Your task to perform on an android device: set the timer Image 0: 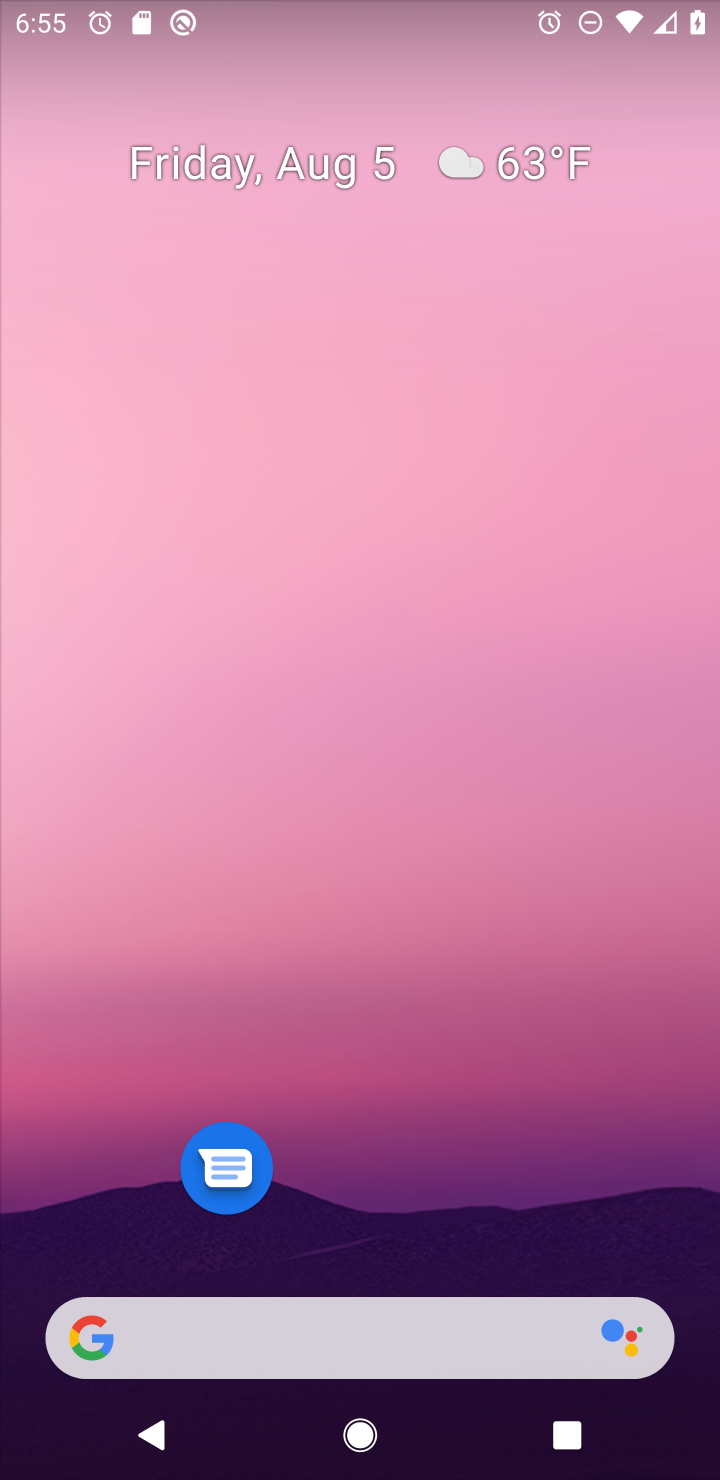
Step 0: press home button
Your task to perform on an android device: set the timer Image 1: 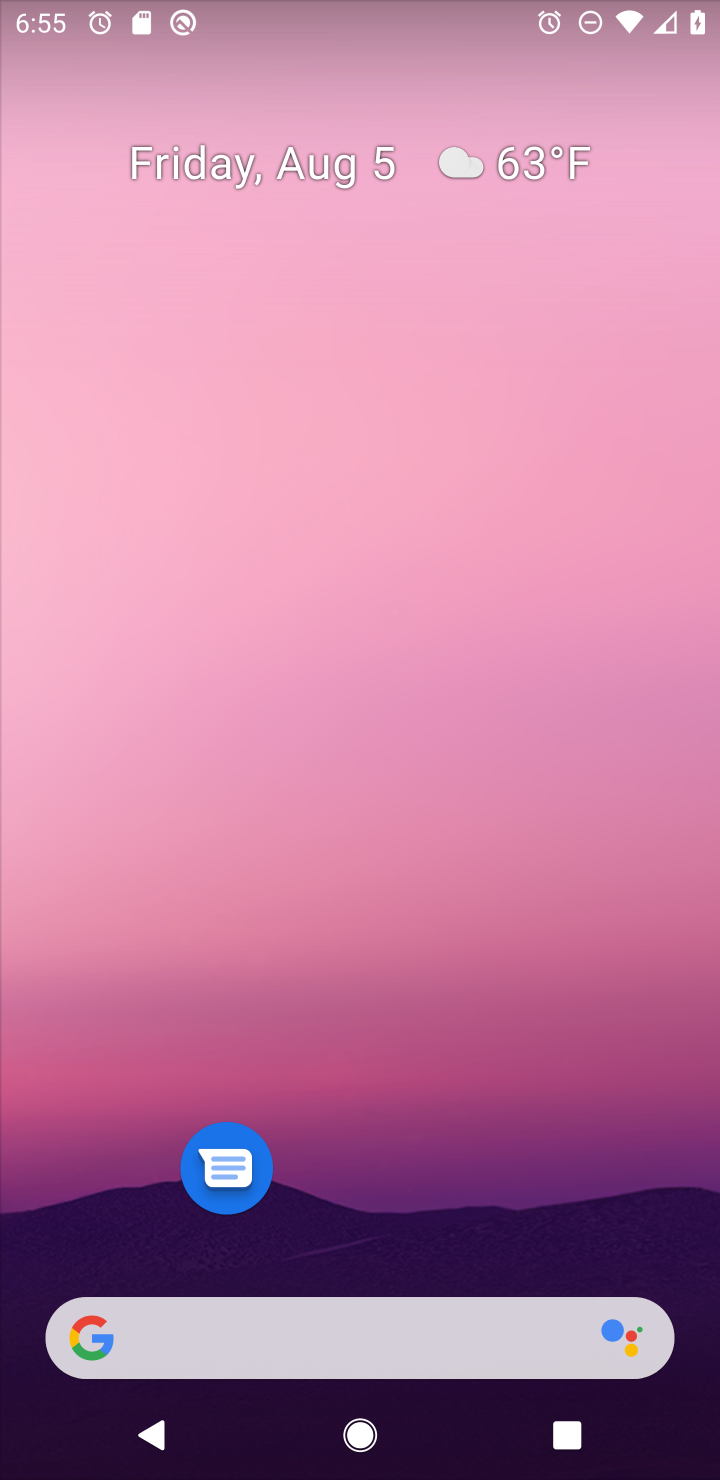
Step 1: drag from (378, 1269) to (441, 341)
Your task to perform on an android device: set the timer Image 2: 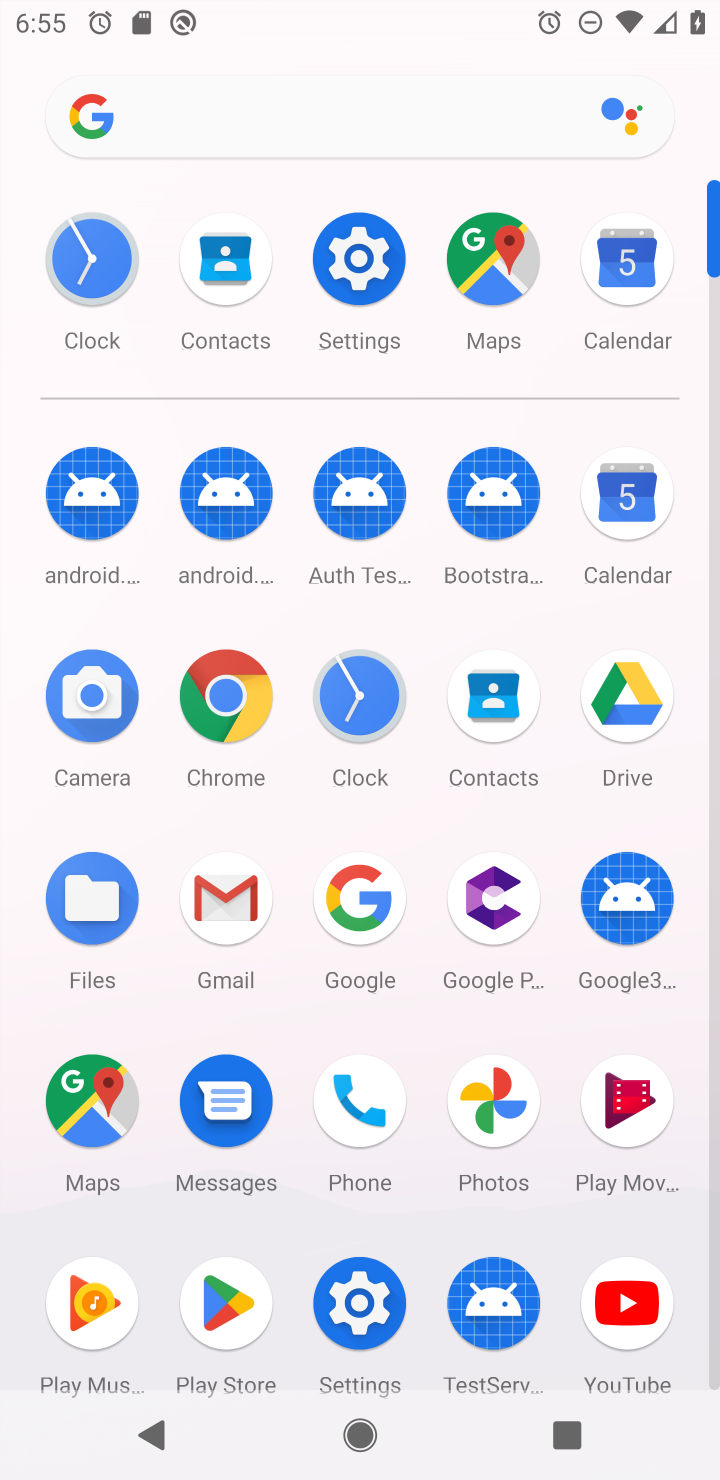
Step 2: click (379, 708)
Your task to perform on an android device: set the timer Image 3: 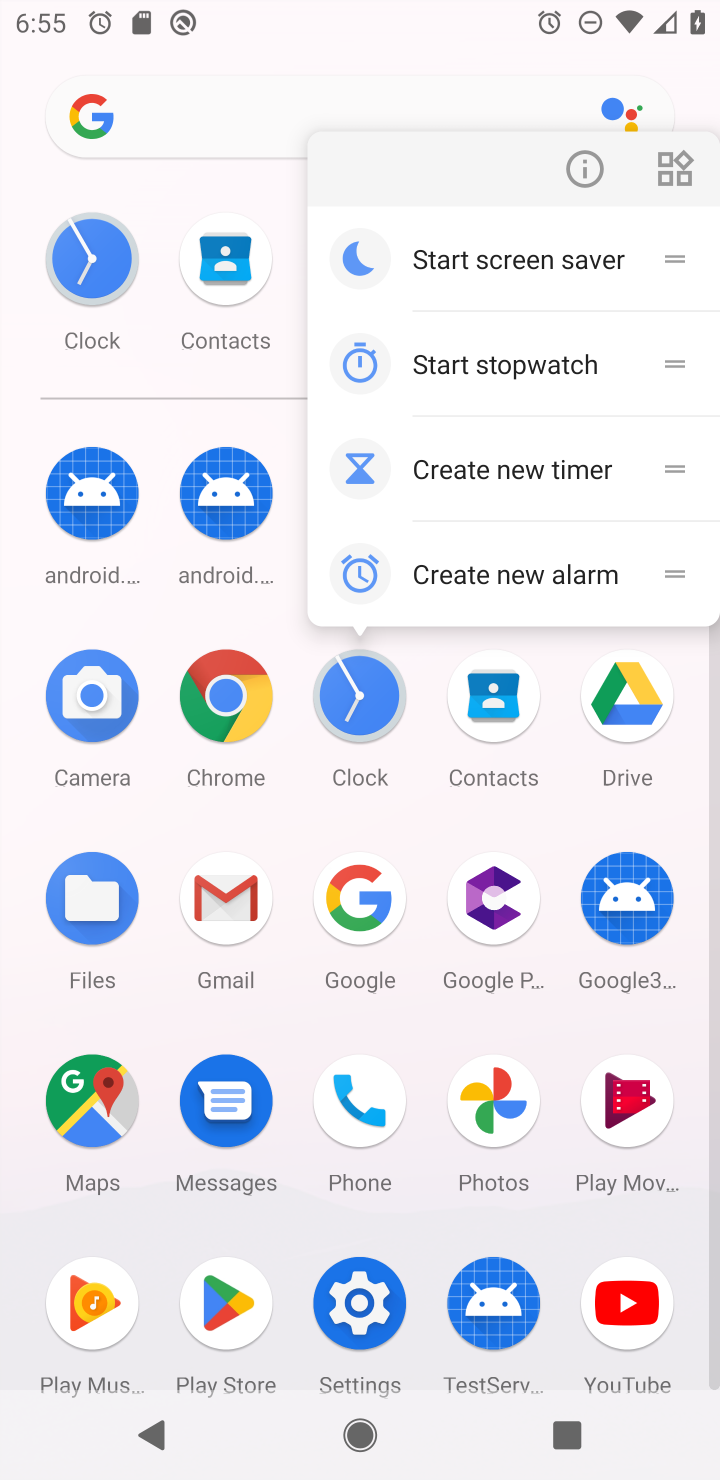
Step 3: click (379, 708)
Your task to perform on an android device: set the timer Image 4: 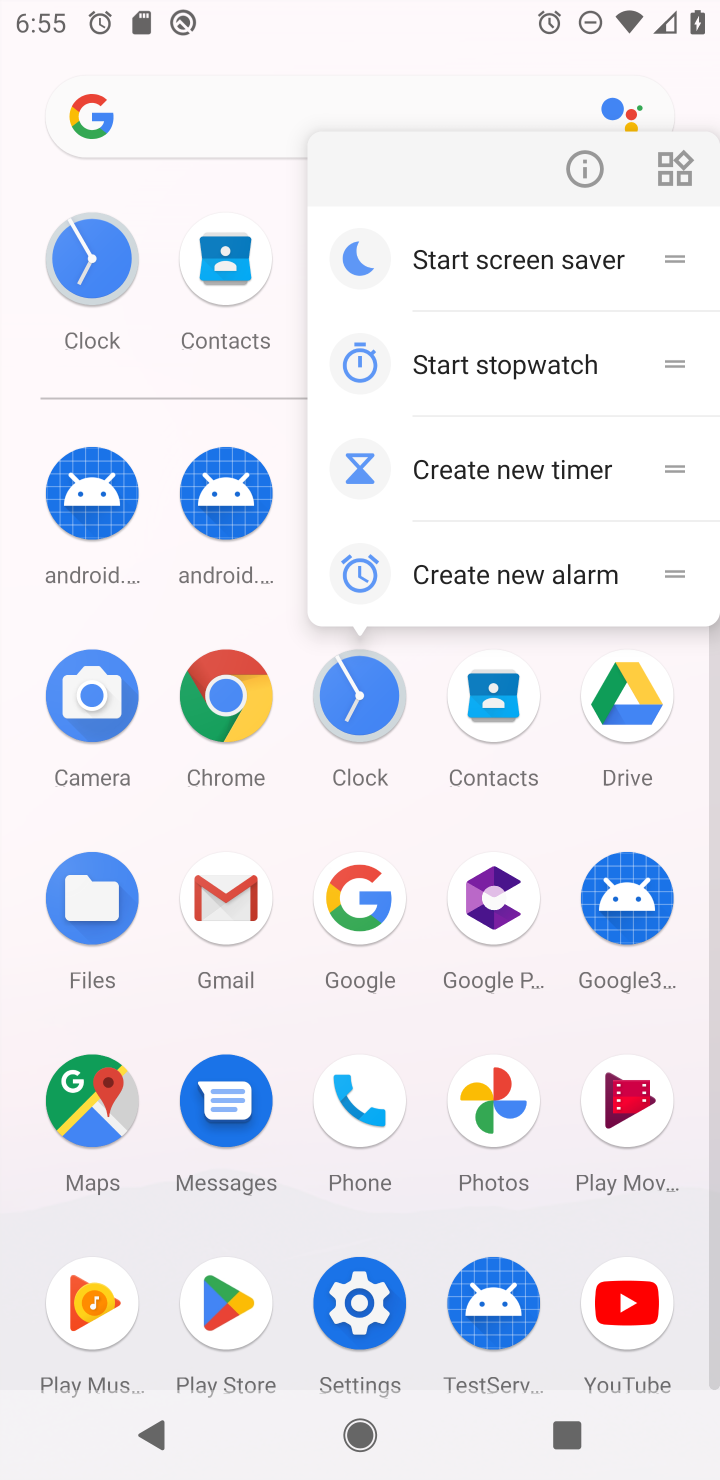
Step 4: click (379, 708)
Your task to perform on an android device: set the timer Image 5: 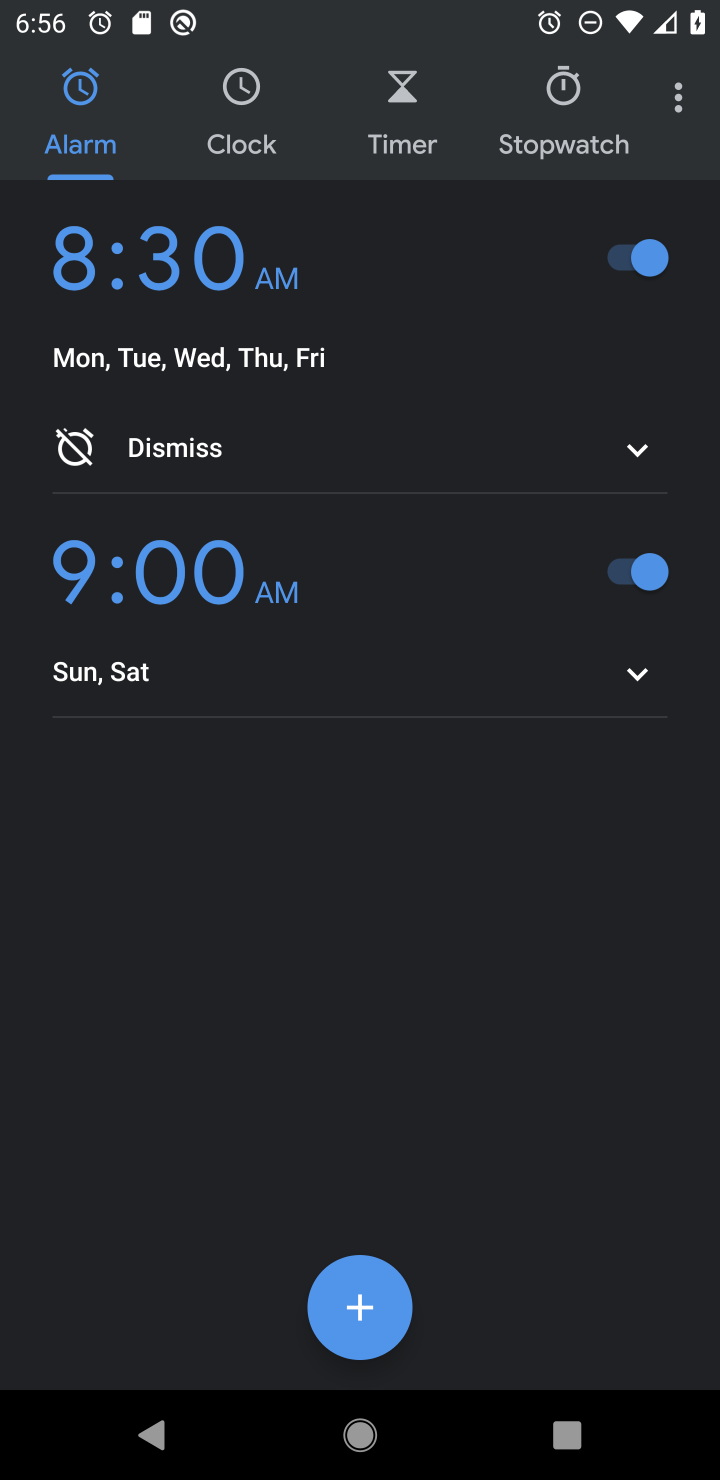
Step 5: click (404, 82)
Your task to perform on an android device: set the timer Image 6: 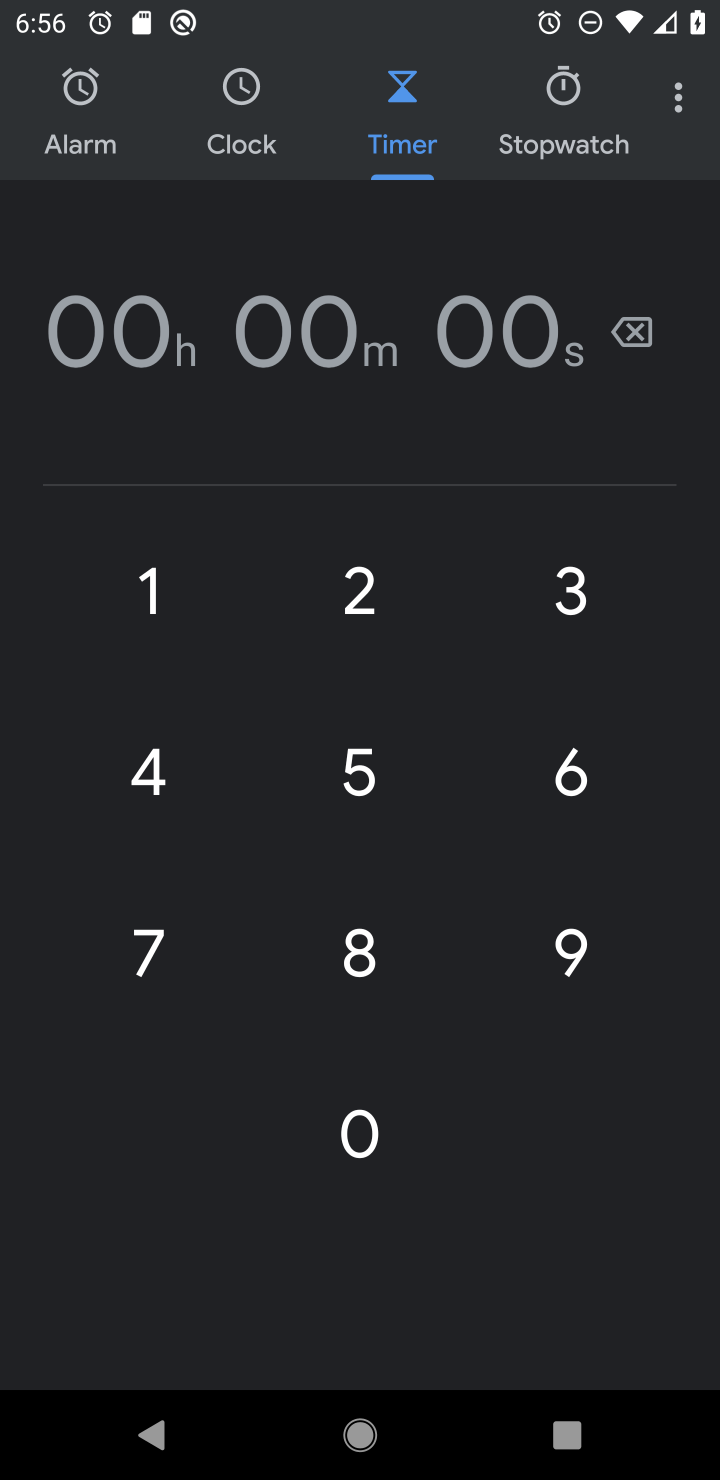
Step 6: click (151, 770)
Your task to perform on an android device: set the timer Image 7: 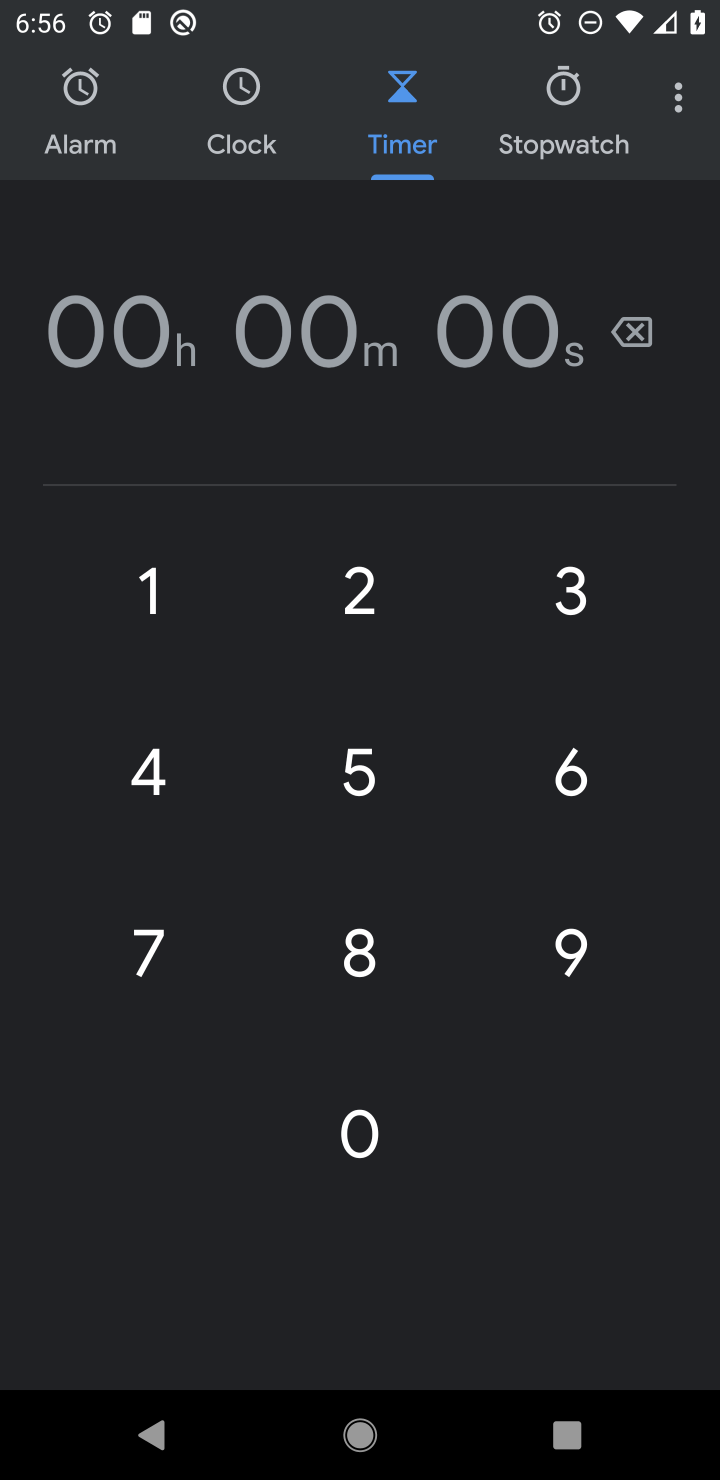
Step 7: click (342, 766)
Your task to perform on an android device: set the timer Image 8: 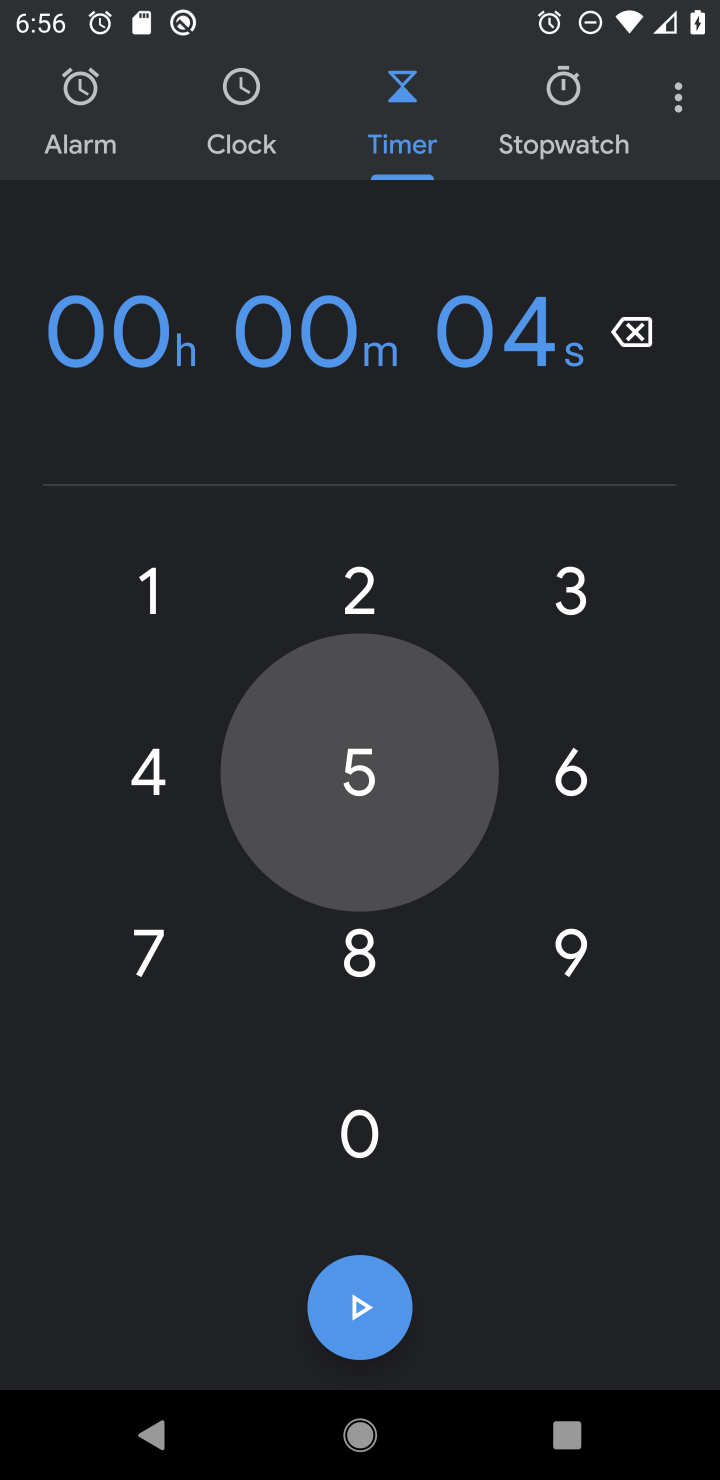
Step 8: click (373, 597)
Your task to perform on an android device: set the timer Image 9: 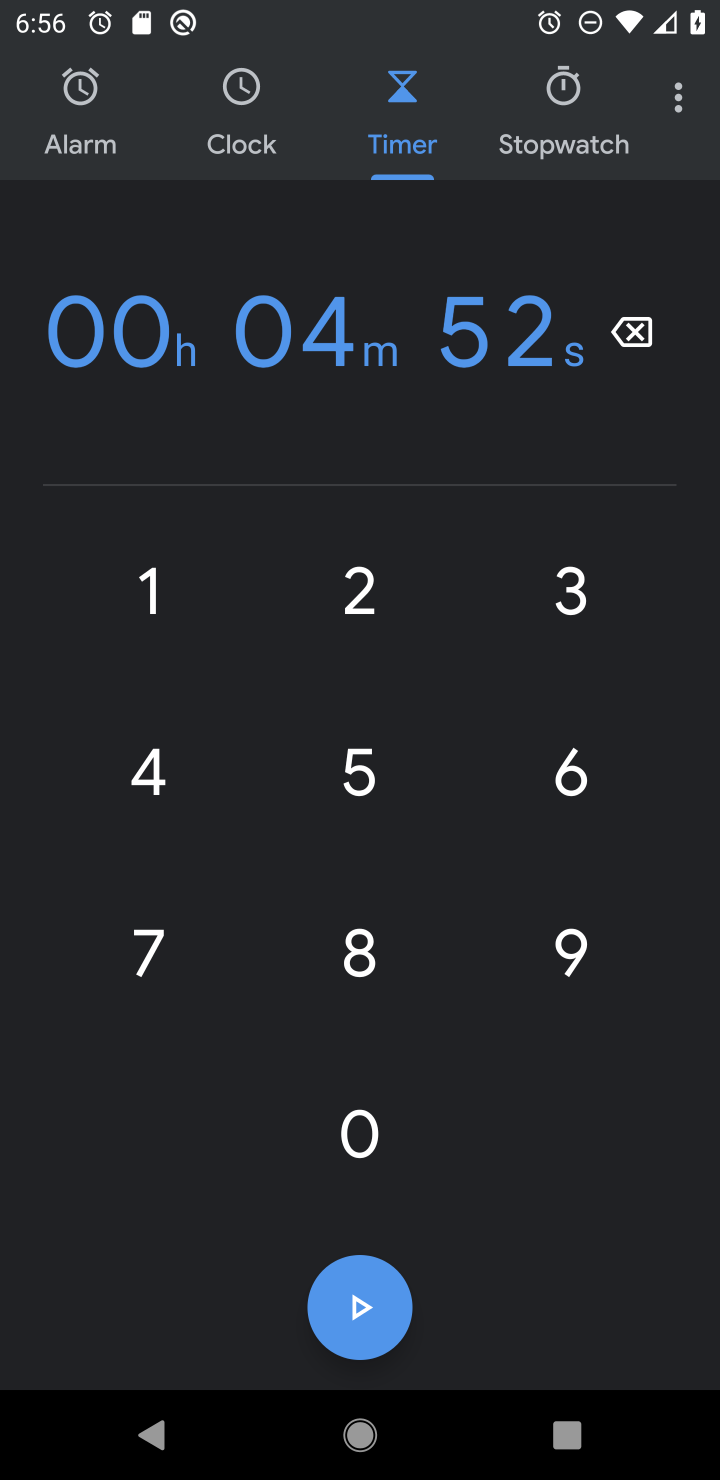
Step 9: click (361, 766)
Your task to perform on an android device: set the timer Image 10: 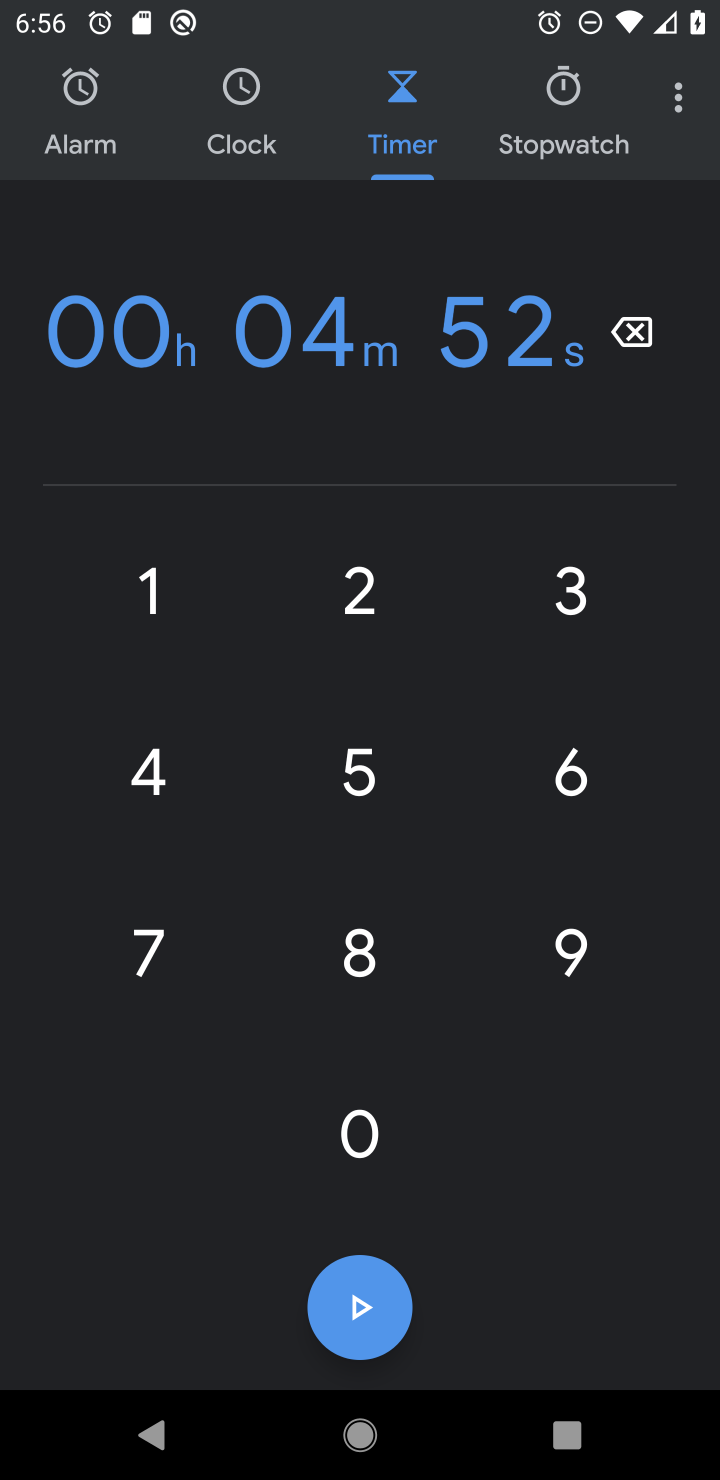
Step 10: click (561, 953)
Your task to perform on an android device: set the timer Image 11: 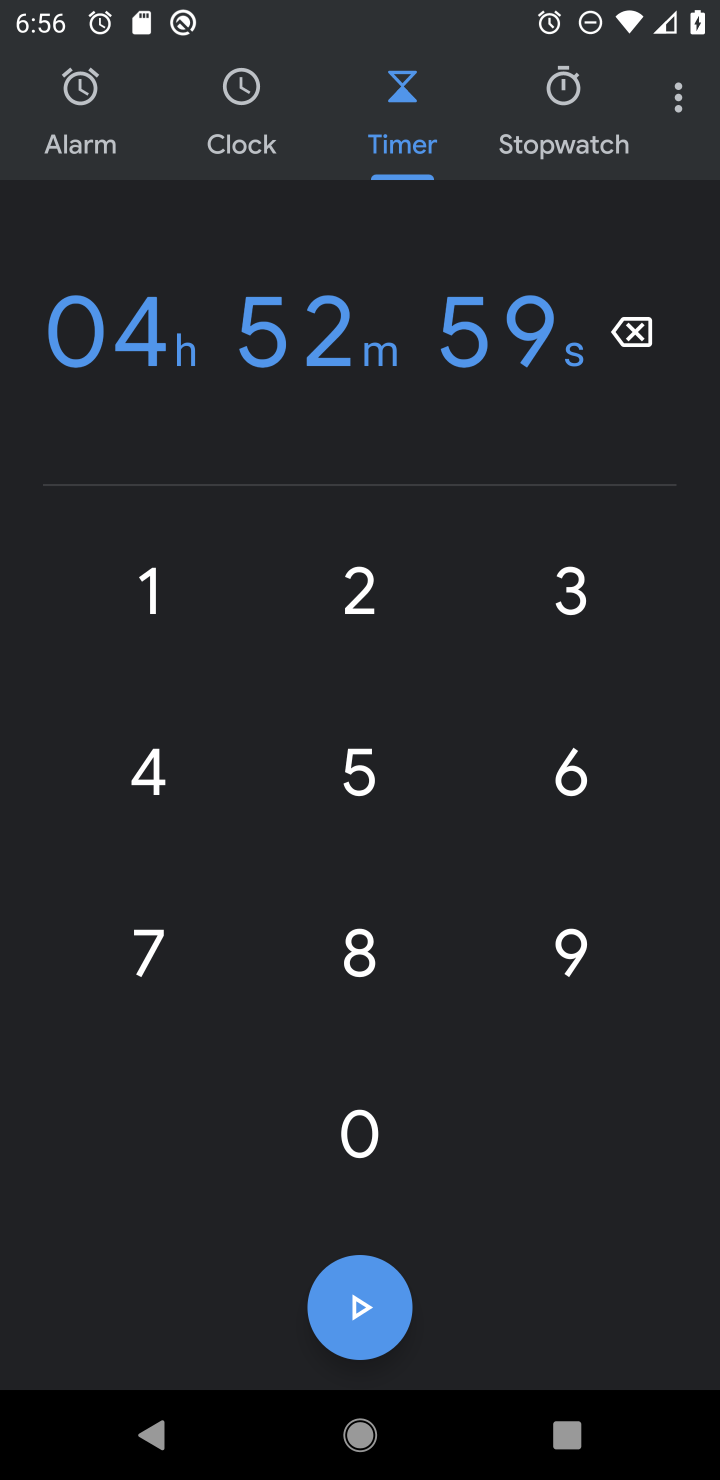
Step 11: click (353, 1313)
Your task to perform on an android device: set the timer Image 12: 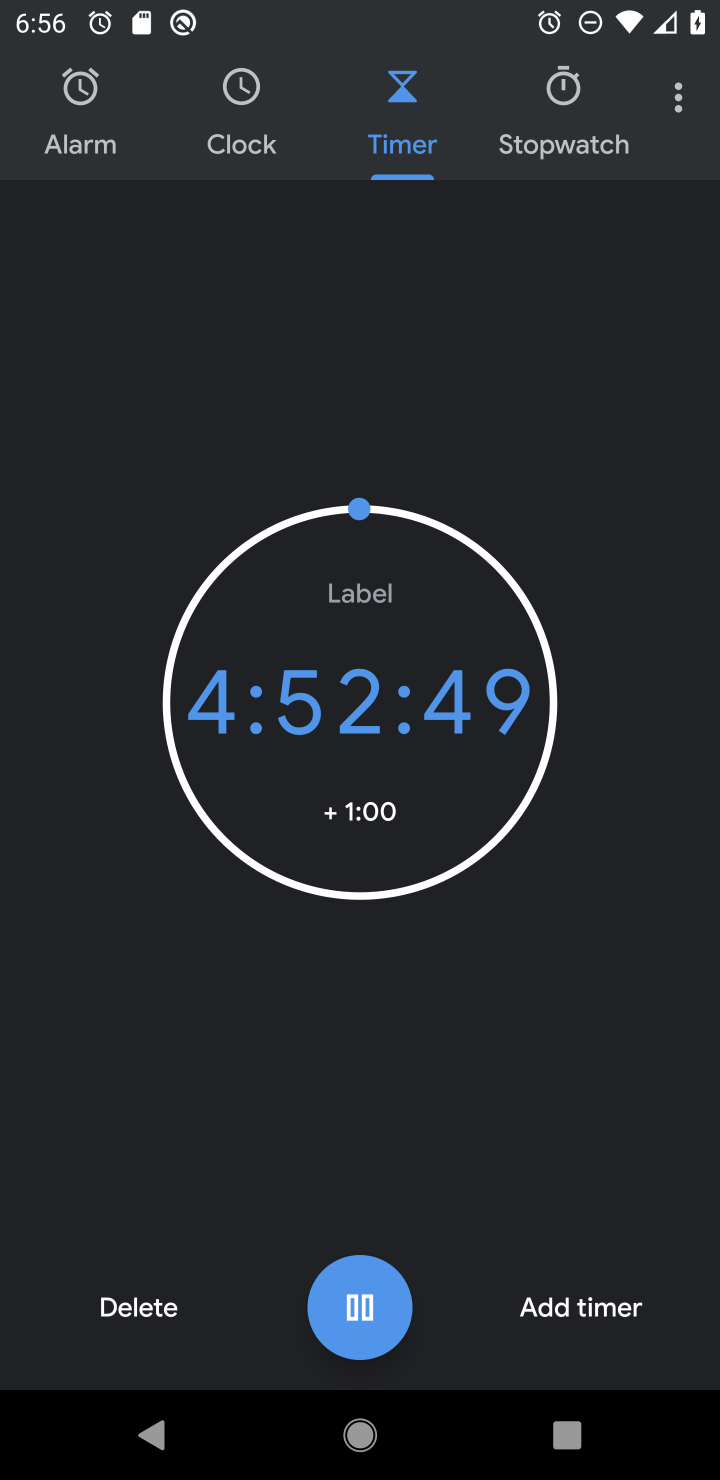
Step 12: task complete